Your task to perform on an android device: Go to settings Image 0: 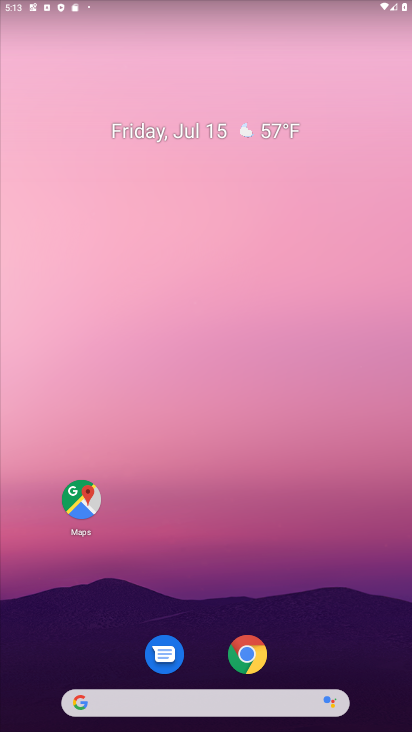
Step 0: drag from (206, 645) to (217, 153)
Your task to perform on an android device: Go to settings Image 1: 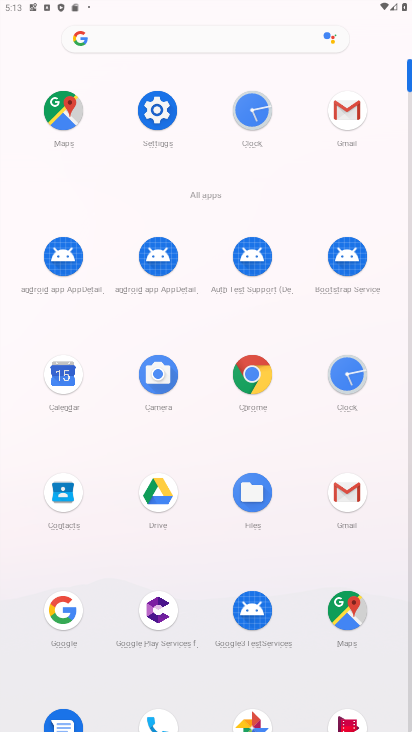
Step 1: click (153, 94)
Your task to perform on an android device: Go to settings Image 2: 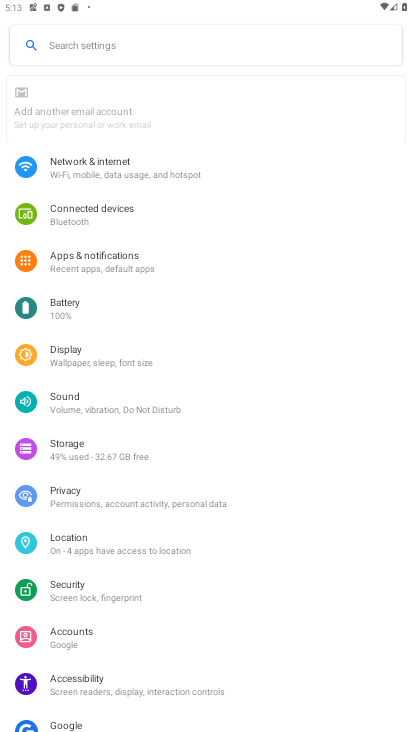
Step 2: task complete